Your task to perform on an android device: change the clock display to digital Image 0: 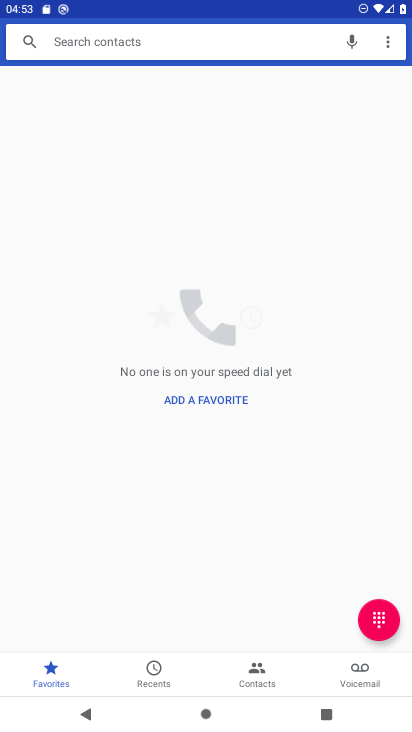
Step 0: press home button
Your task to perform on an android device: change the clock display to digital Image 1: 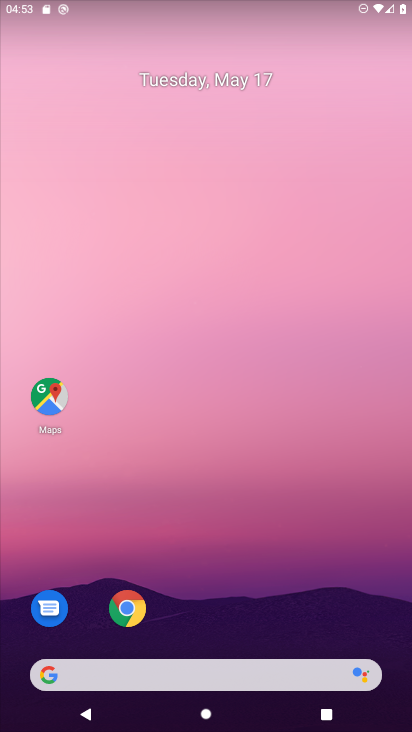
Step 1: drag from (139, 649) to (194, 325)
Your task to perform on an android device: change the clock display to digital Image 2: 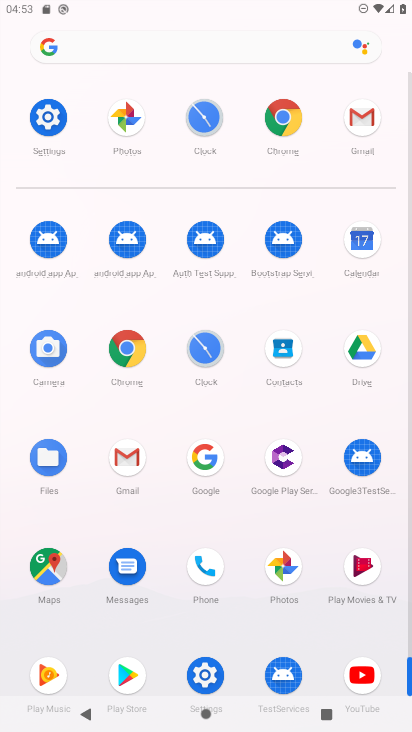
Step 2: click (203, 121)
Your task to perform on an android device: change the clock display to digital Image 3: 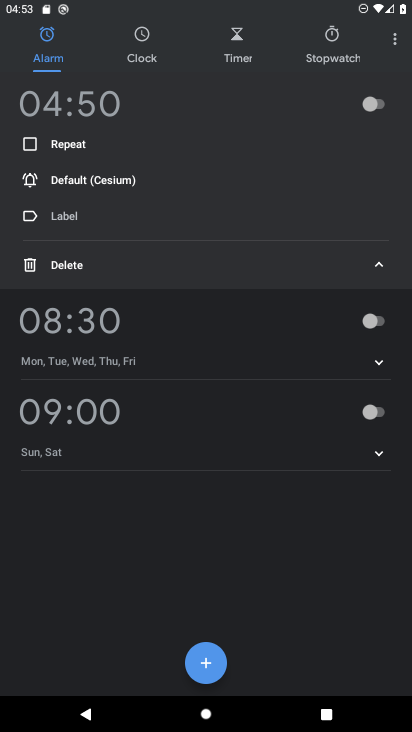
Step 3: click (399, 40)
Your task to perform on an android device: change the clock display to digital Image 4: 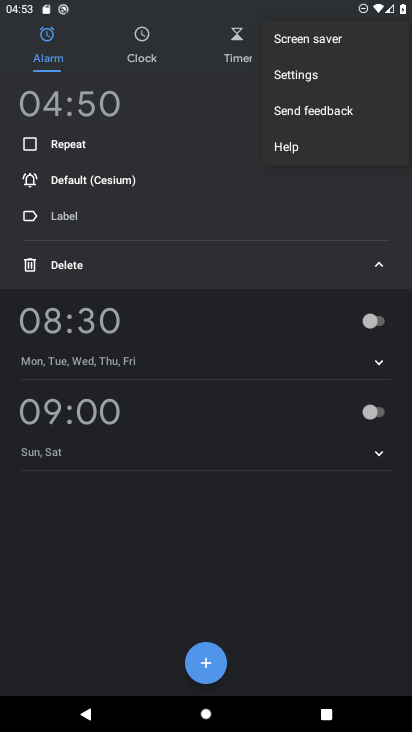
Step 4: click (317, 77)
Your task to perform on an android device: change the clock display to digital Image 5: 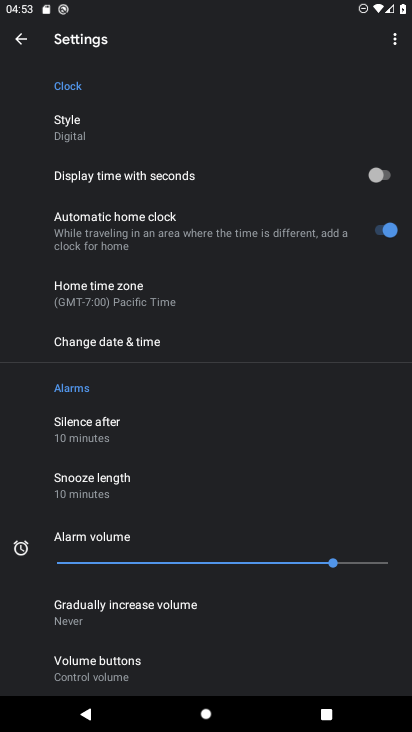
Step 5: click (73, 125)
Your task to perform on an android device: change the clock display to digital Image 6: 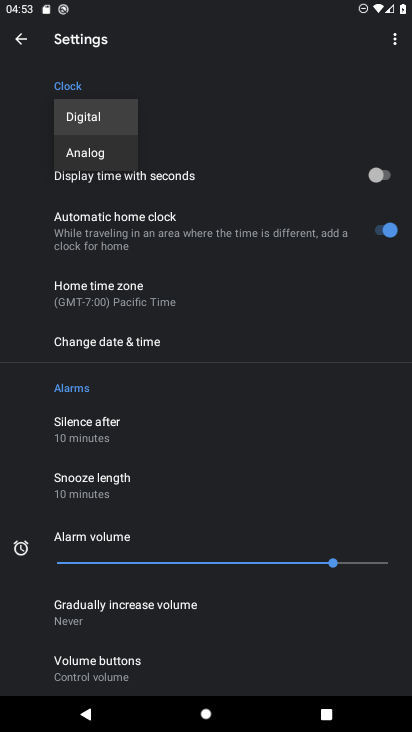
Step 6: task complete